Your task to perform on an android device: Open the Play Movies app and select the watchlist tab. Image 0: 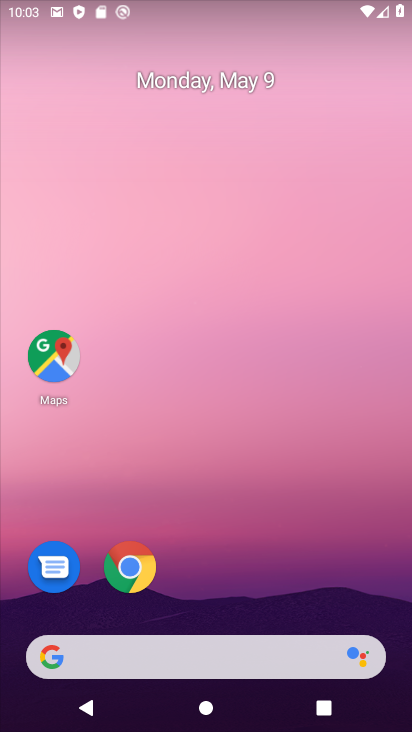
Step 0: drag from (212, 439) to (212, 76)
Your task to perform on an android device: Open the Play Movies app and select the watchlist tab. Image 1: 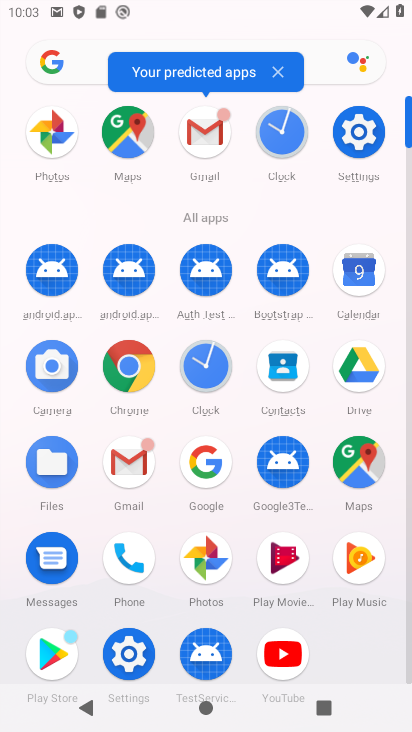
Step 1: click (285, 553)
Your task to perform on an android device: Open the Play Movies app and select the watchlist tab. Image 2: 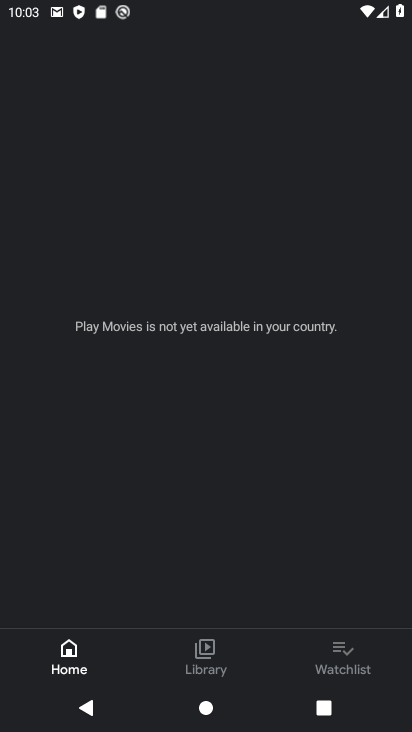
Step 2: click (333, 650)
Your task to perform on an android device: Open the Play Movies app and select the watchlist tab. Image 3: 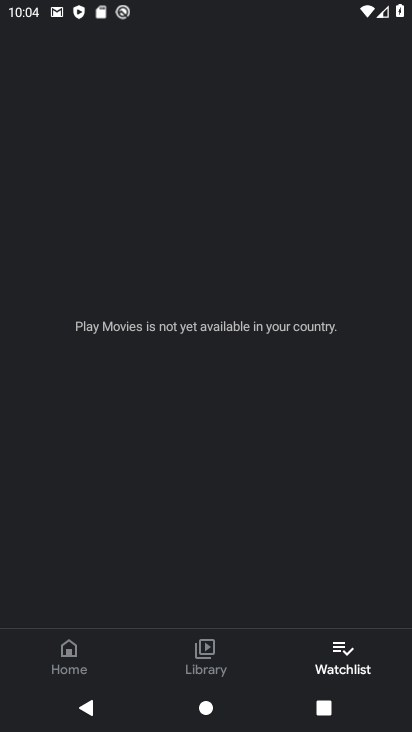
Step 3: task complete